Your task to perform on an android device: open sync settings in chrome Image 0: 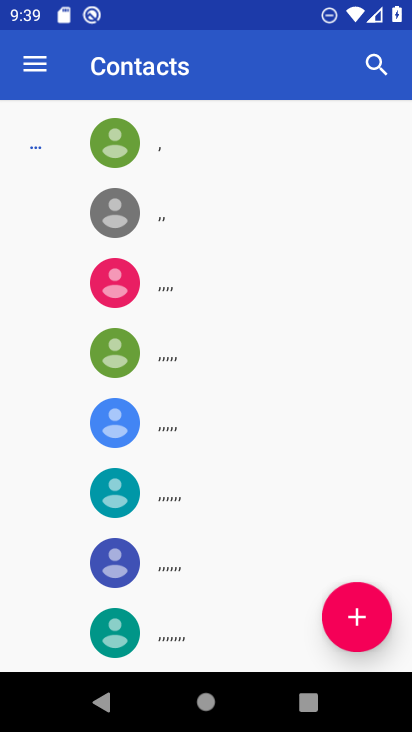
Step 0: press home button
Your task to perform on an android device: open sync settings in chrome Image 1: 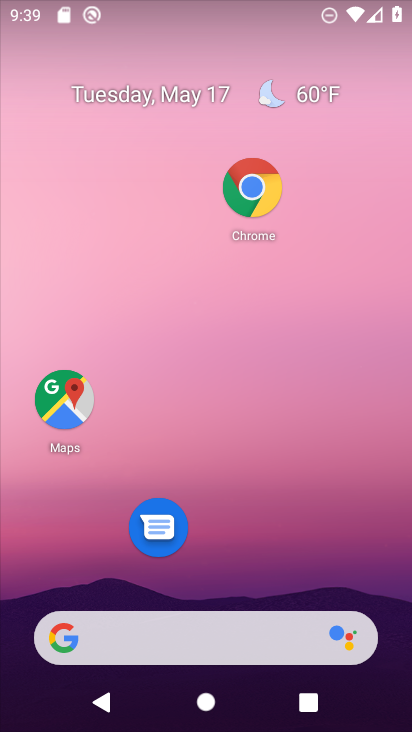
Step 1: click (270, 191)
Your task to perform on an android device: open sync settings in chrome Image 2: 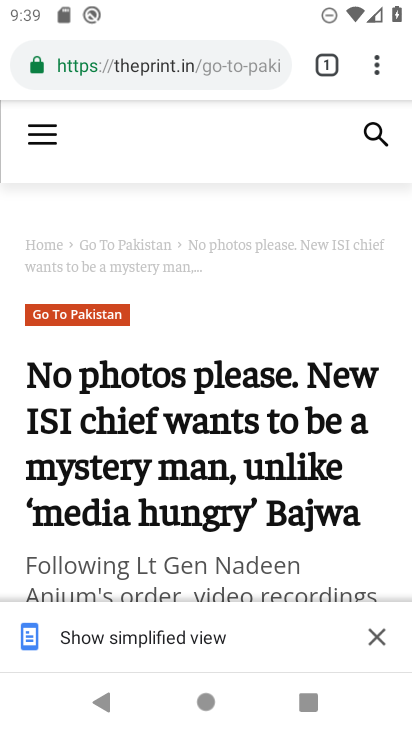
Step 2: click (363, 75)
Your task to perform on an android device: open sync settings in chrome Image 3: 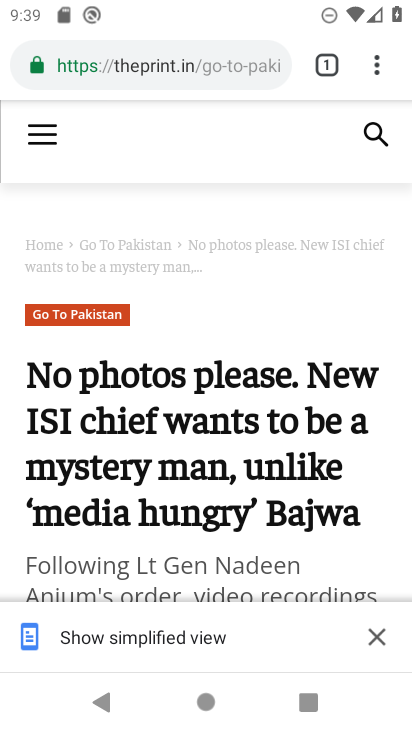
Step 3: click (388, 61)
Your task to perform on an android device: open sync settings in chrome Image 4: 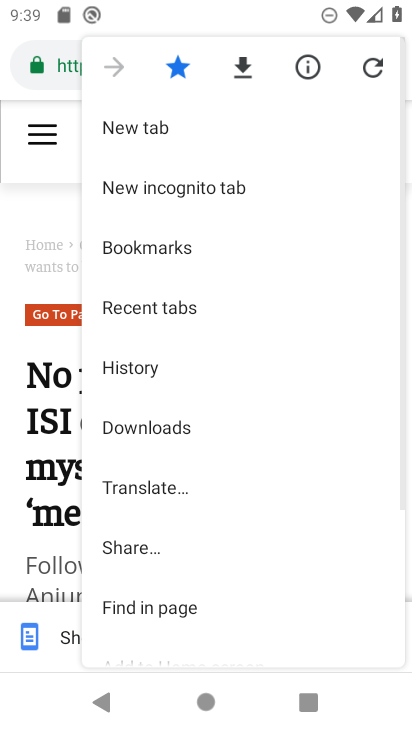
Step 4: drag from (194, 553) to (255, 163)
Your task to perform on an android device: open sync settings in chrome Image 5: 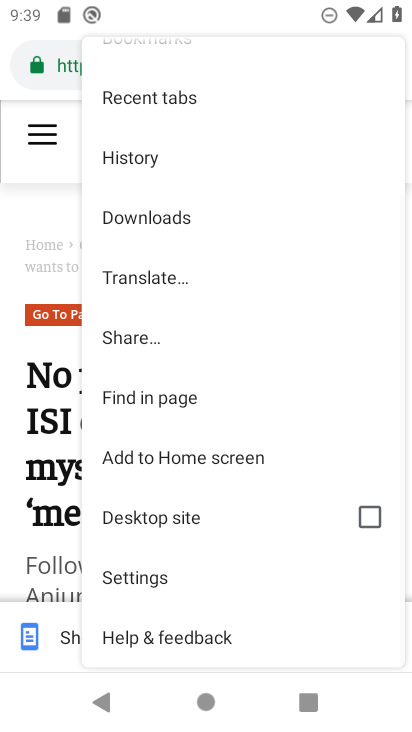
Step 5: click (202, 551)
Your task to perform on an android device: open sync settings in chrome Image 6: 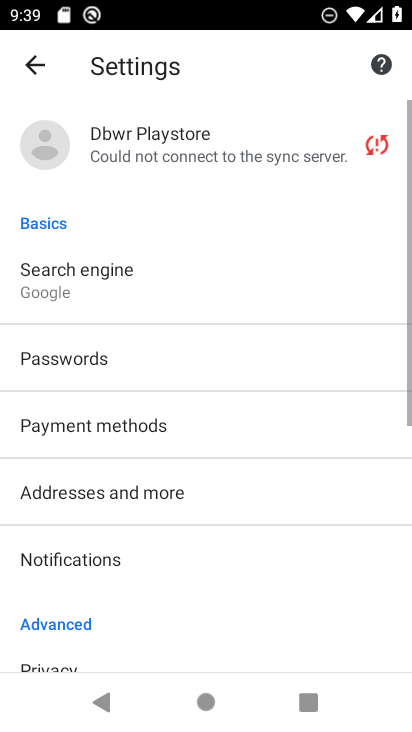
Step 6: drag from (174, 615) to (217, 223)
Your task to perform on an android device: open sync settings in chrome Image 7: 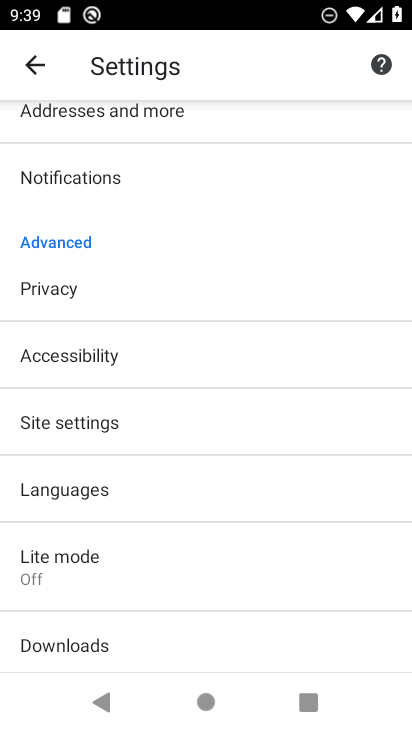
Step 7: drag from (171, 564) to (176, 604)
Your task to perform on an android device: open sync settings in chrome Image 8: 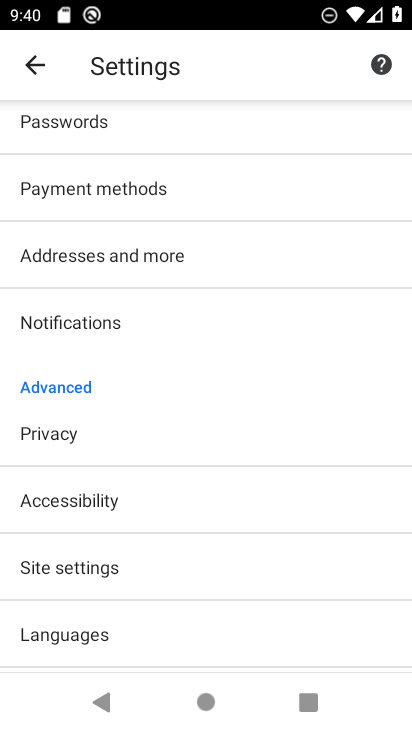
Step 8: drag from (210, 224) to (192, 506)
Your task to perform on an android device: open sync settings in chrome Image 9: 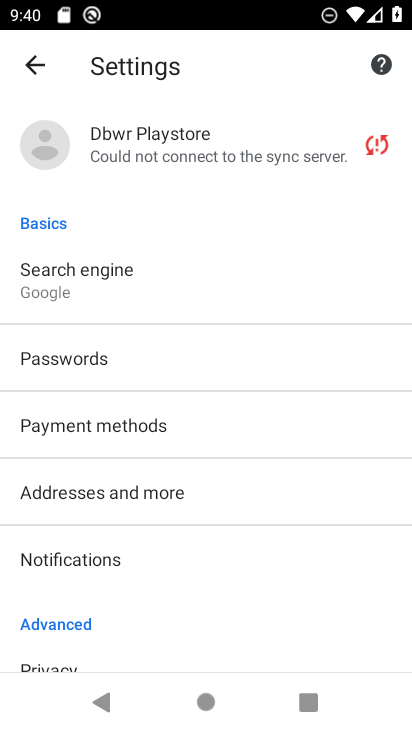
Step 9: click (190, 602)
Your task to perform on an android device: open sync settings in chrome Image 10: 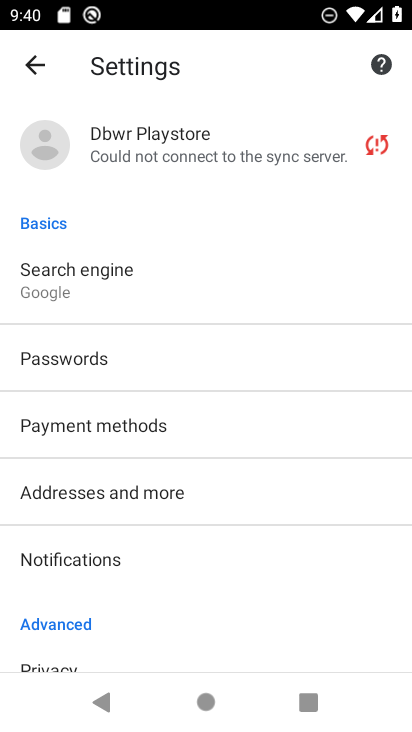
Step 10: click (211, 150)
Your task to perform on an android device: open sync settings in chrome Image 11: 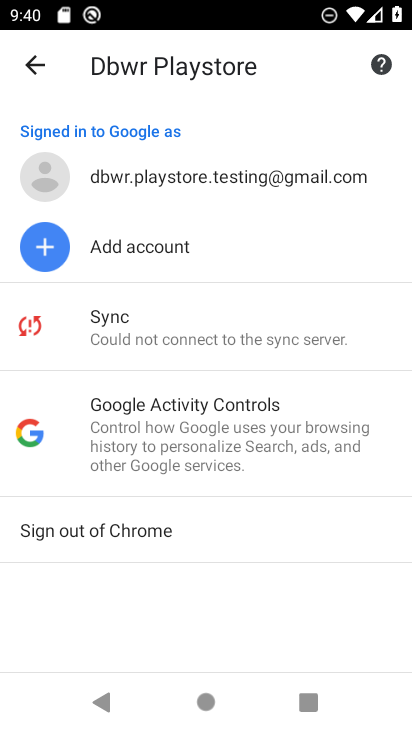
Step 11: click (166, 331)
Your task to perform on an android device: open sync settings in chrome Image 12: 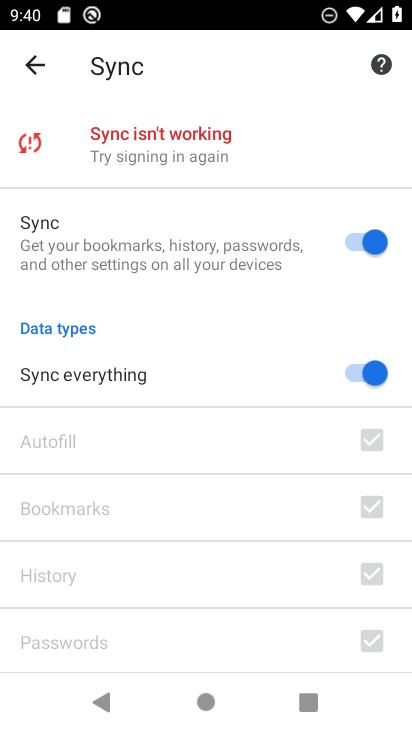
Step 12: task complete